Your task to perform on an android device: Search for Mexican restaurants on Maps Image 0: 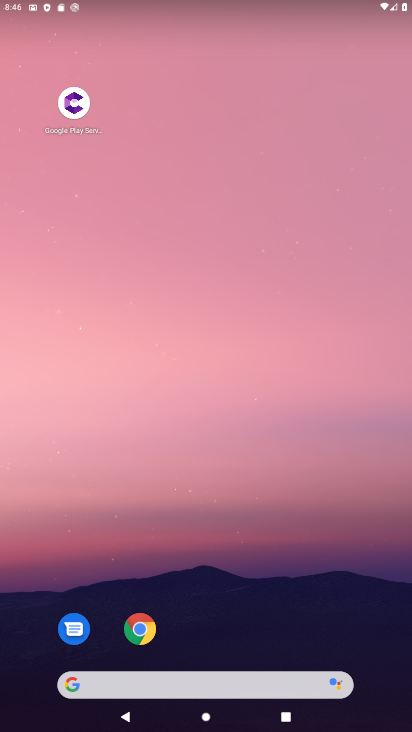
Step 0: drag from (351, 629) to (298, 547)
Your task to perform on an android device: Search for Mexican restaurants on Maps Image 1: 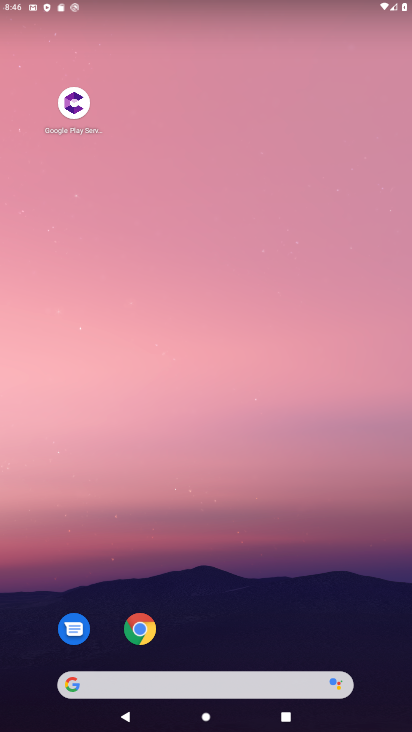
Step 1: drag from (58, 287) to (407, 332)
Your task to perform on an android device: Search for Mexican restaurants on Maps Image 2: 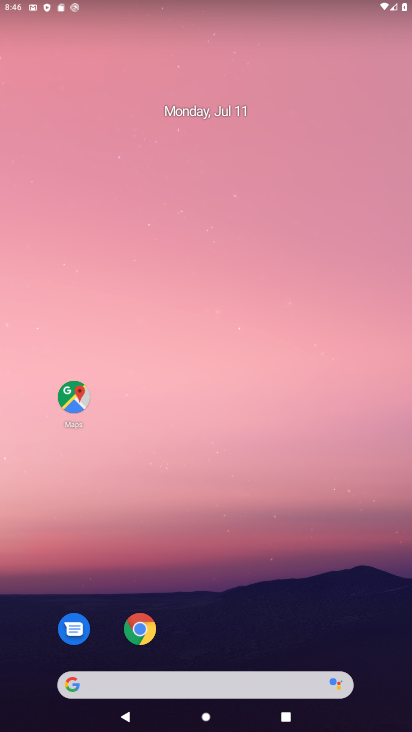
Step 2: click (58, 404)
Your task to perform on an android device: Search for Mexican restaurants on Maps Image 3: 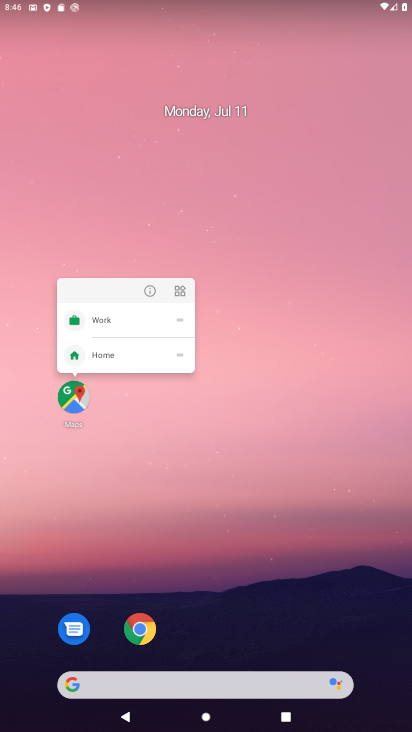
Step 3: click (72, 406)
Your task to perform on an android device: Search for Mexican restaurants on Maps Image 4: 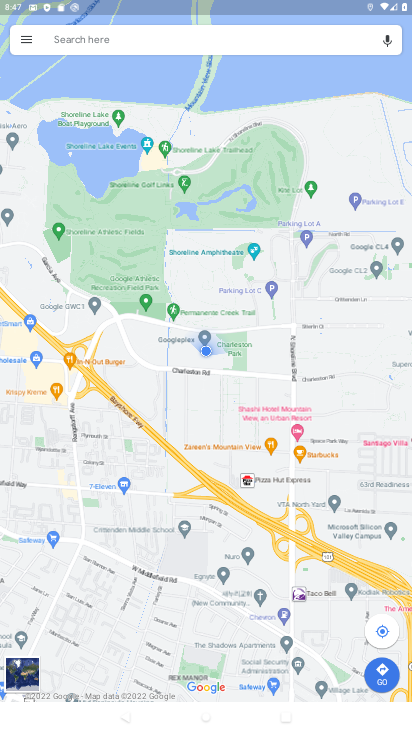
Step 4: click (217, 44)
Your task to perform on an android device: Search for Mexican restaurants on Maps Image 5: 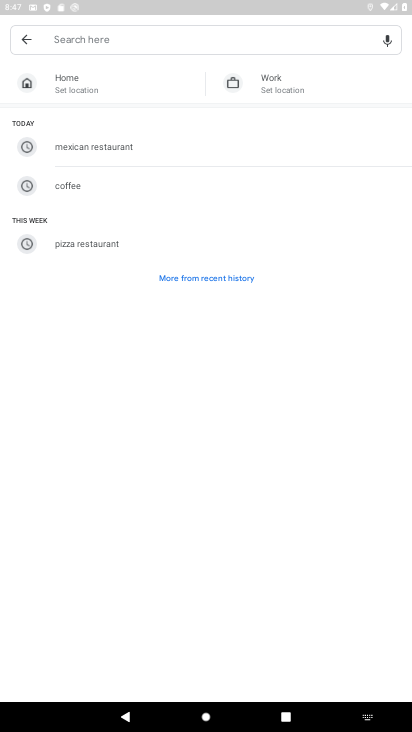
Step 5: click (113, 147)
Your task to perform on an android device: Search for Mexican restaurants on Maps Image 6: 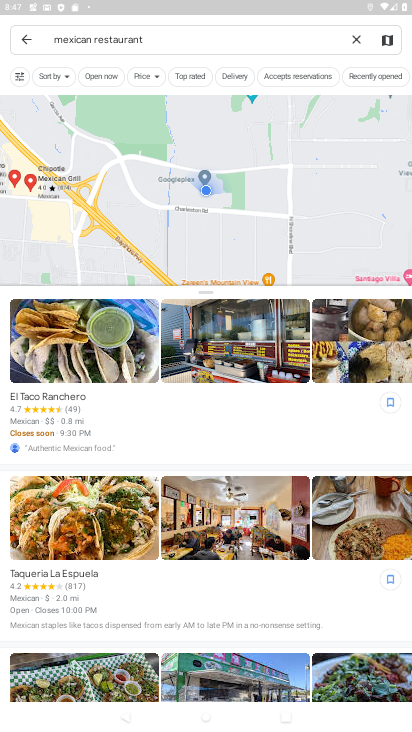
Step 6: task complete